Your task to perform on an android device: Open internet settings Image 0: 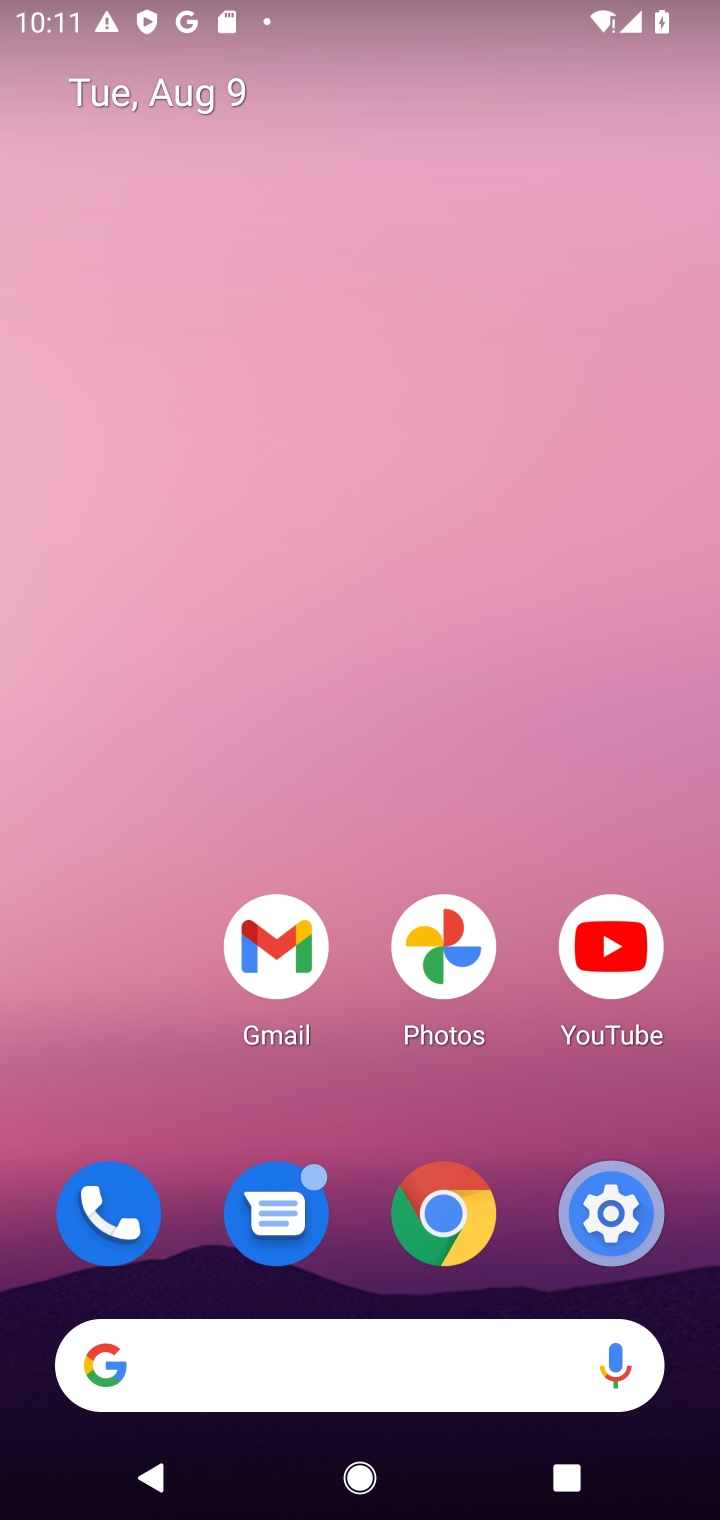
Step 0: drag from (434, 1293) to (552, 50)
Your task to perform on an android device: Open internet settings Image 1: 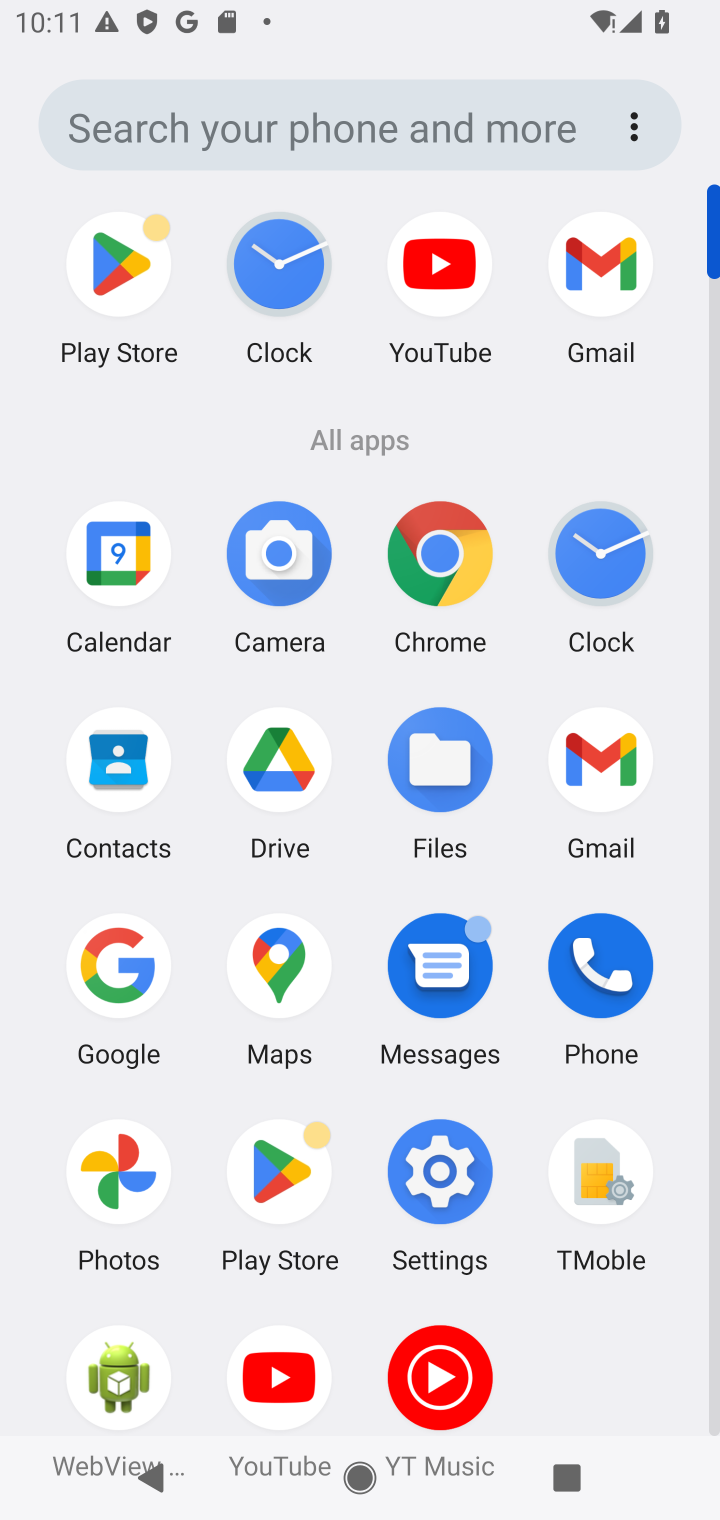
Step 1: click (462, 1173)
Your task to perform on an android device: Open internet settings Image 2: 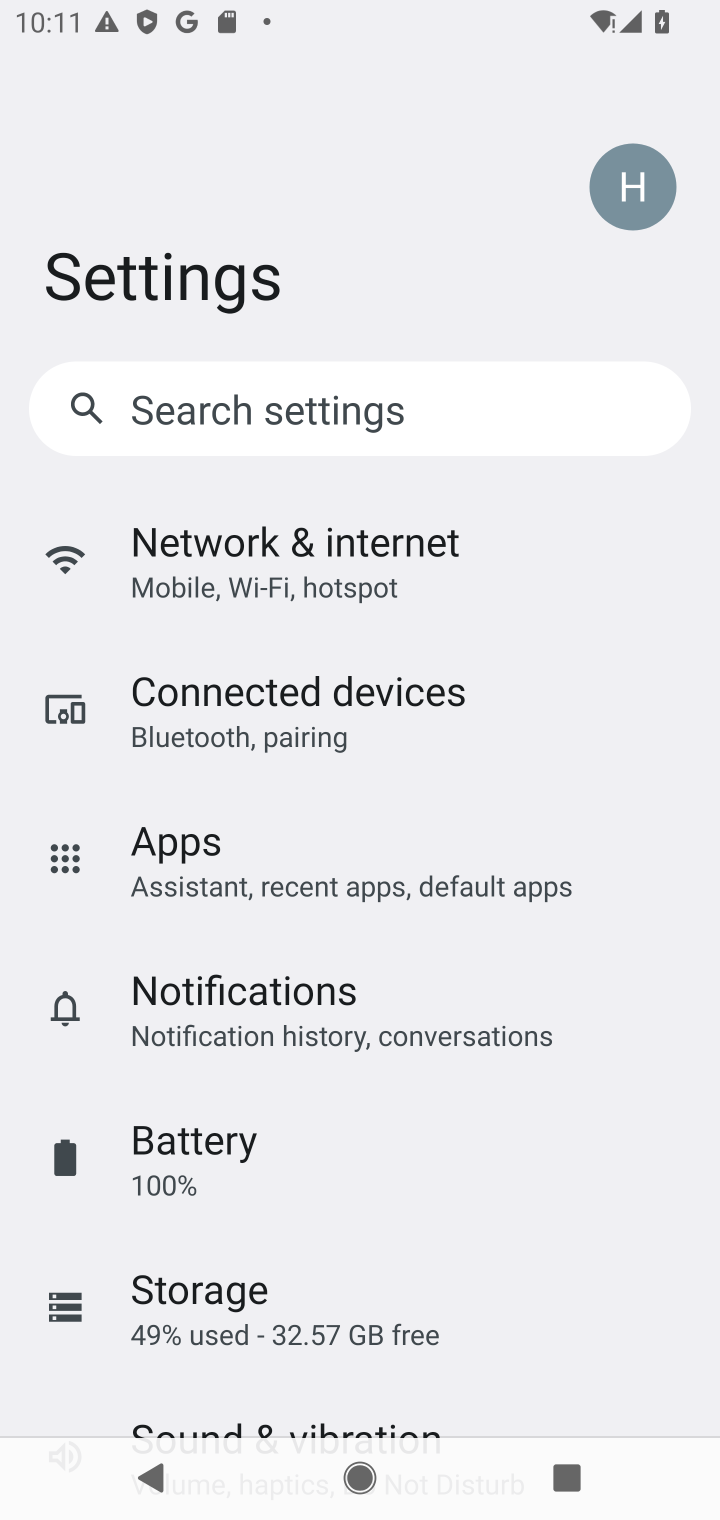
Step 2: click (257, 573)
Your task to perform on an android device: Open internet settings Image 3: 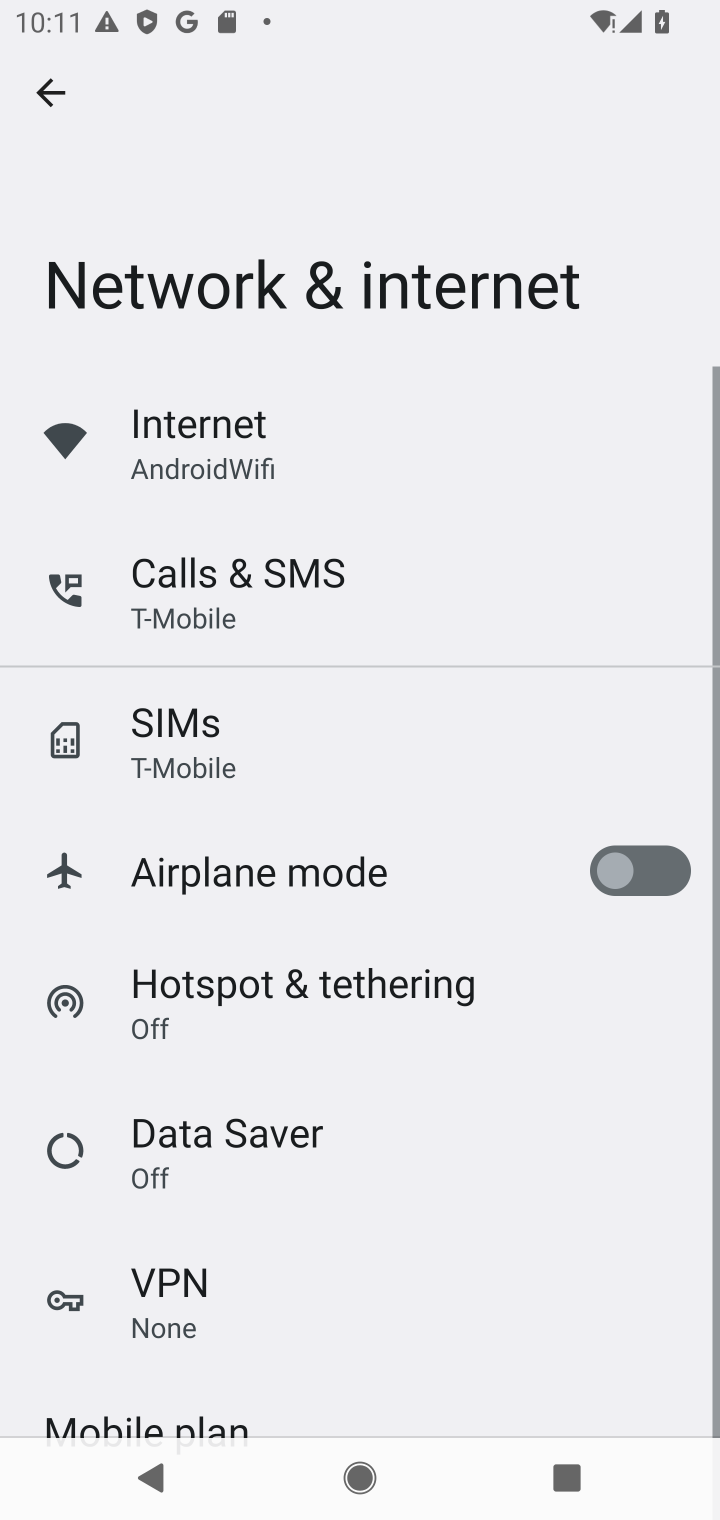
Step 3: task complete